Your task to perform on an android device: Show me popular videos on Youtube Image 0: 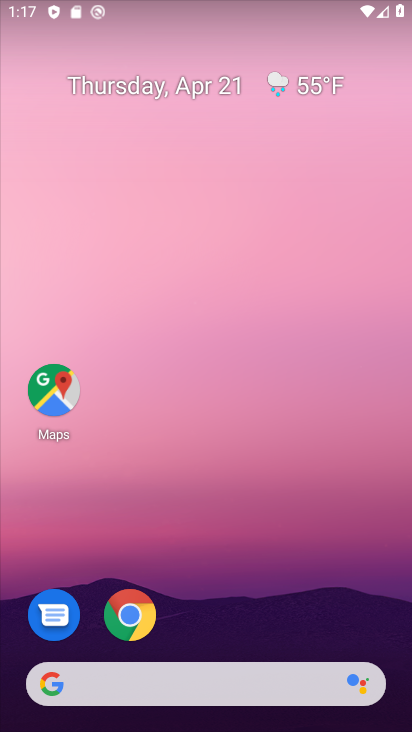
Step 0: drag from (181, 659) to (248, 326)
Your task to perform on an android device: Show me popular videos on Youtube Image 1: 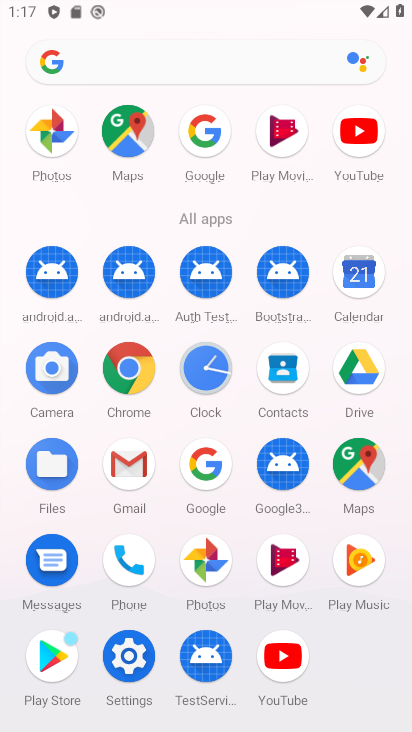
Step 1: click (355, 128)
Your task to perform on an android device: Show me popular videos on Youtube Image 2: 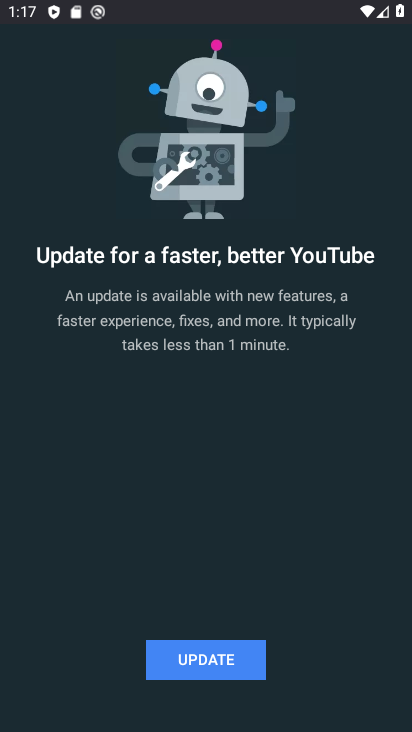
Step 2: click (177, 661)
Your task to perform on an android device: Show me popular videos on Youtube Image 3: 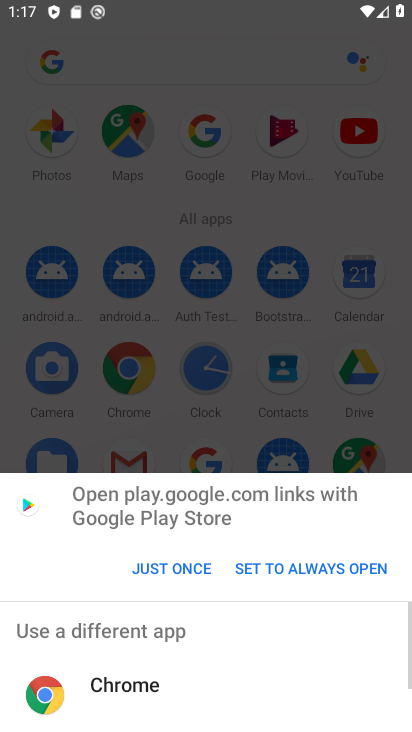
Step 3: click (167, 563)
Your task to perform on an android device: Show me popular videos on Youtube Image 4: 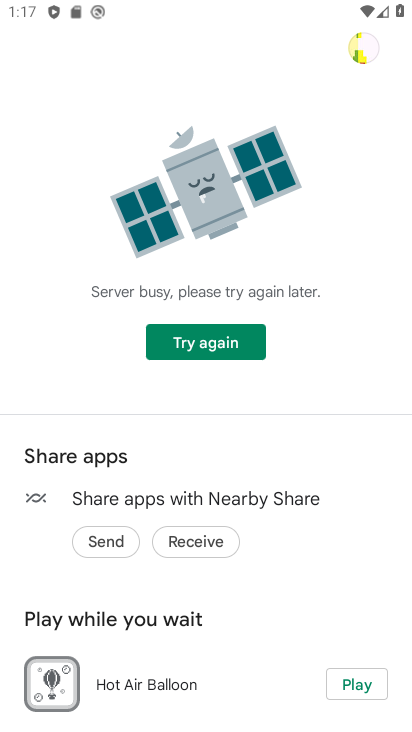
Step 4: click (194, 337)
Your task to perform on an android device: Show me popular videos on Youtube Image 5: 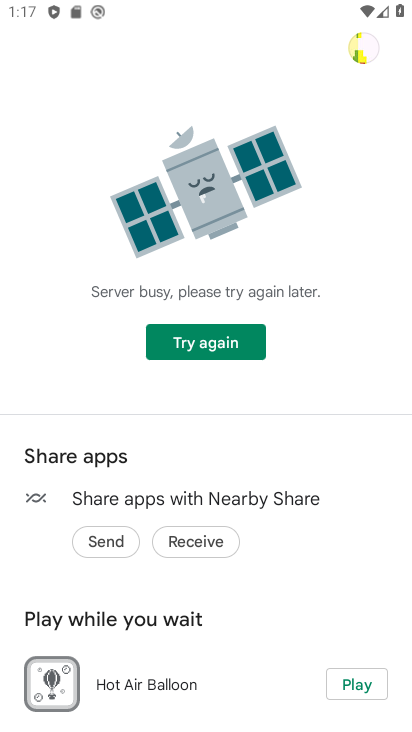
Step 5: task complete